Your task to perform on an android device: Open Reddit.com Image 0: 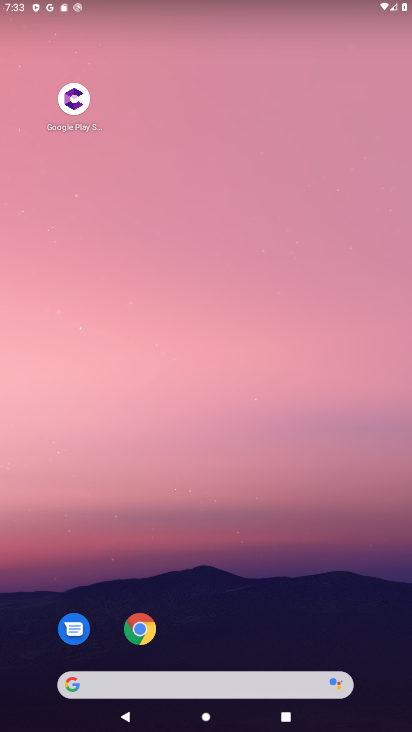
Step 0: click (203, 677)
Your task to perform on an android device: Open Reddit.com Image 1: 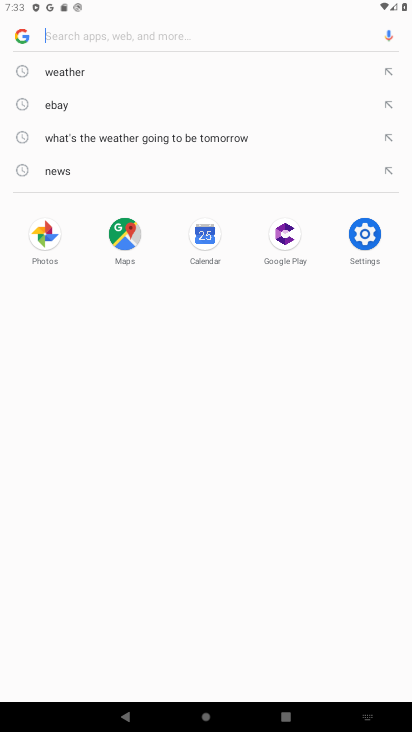
Step 1: type "reddit.com"
Your task to perform on an android device: Open Reddit.com Image 2: 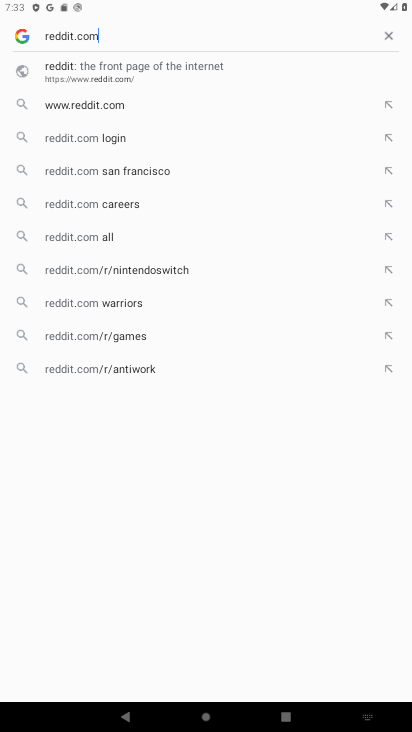
Step 2: click (181, 83)
Your task to perform on an android device: Open Reddit.com Image 3: 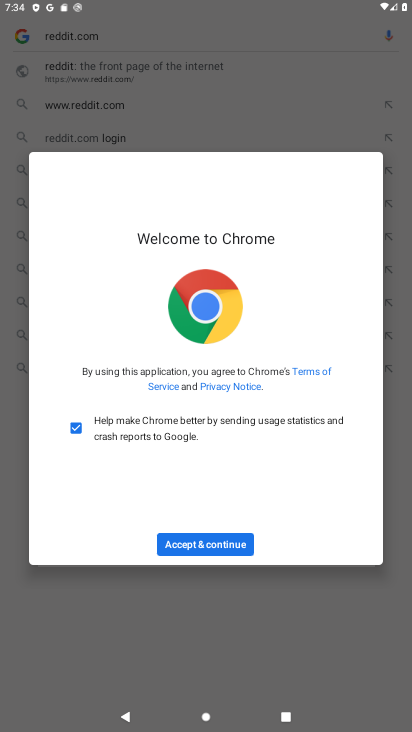
Step 3: click (219, 543)
Your task to perform on an android device: Open Reddit.com Image 4: 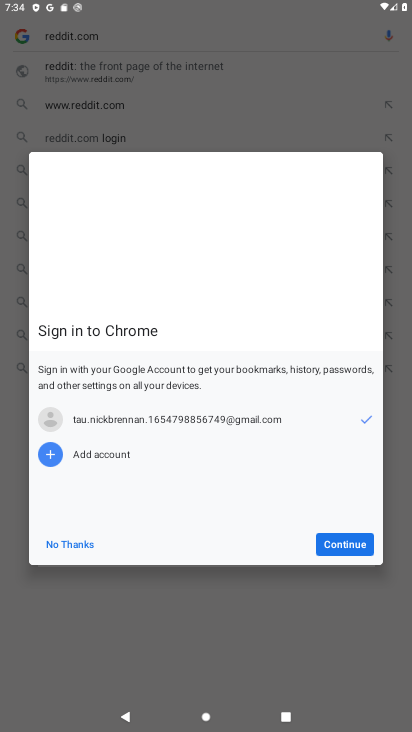
Step 4: click (356, 550)
Your task to perform on an android device: Open Reddit.com Image 5: 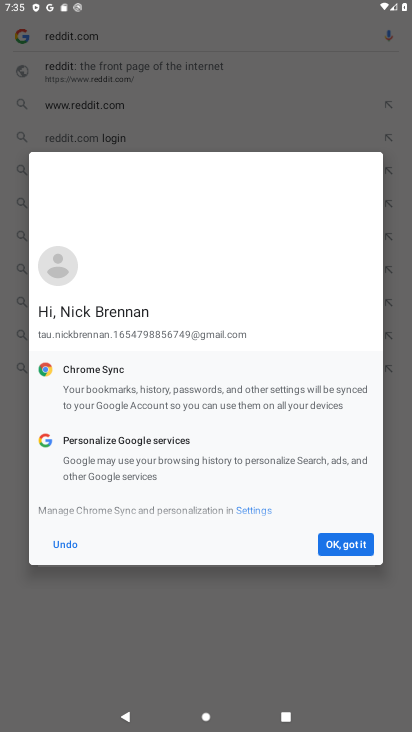
Step 5: click (356, 550)
Your task to perform on an android device: Open Reddit.com Image 6: 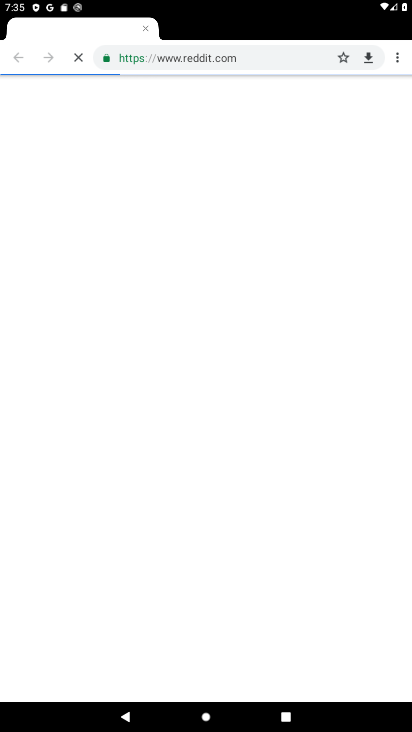
Step 6: task complete